Your task to perform on an android device: Go to settings Image 0: 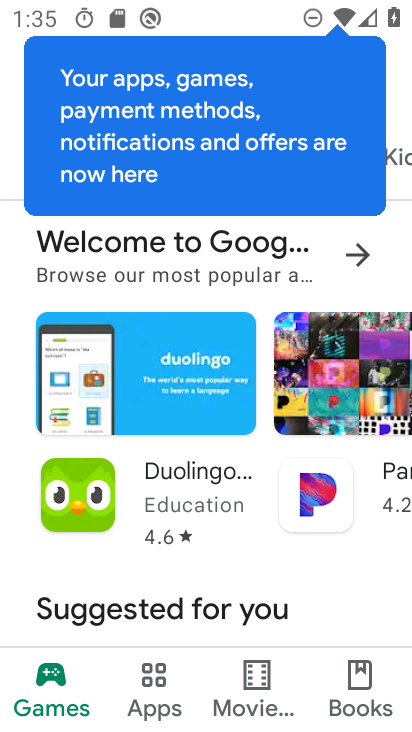
Step 0: press home button
Your task to perform on an android device: Go to settings Image 1: 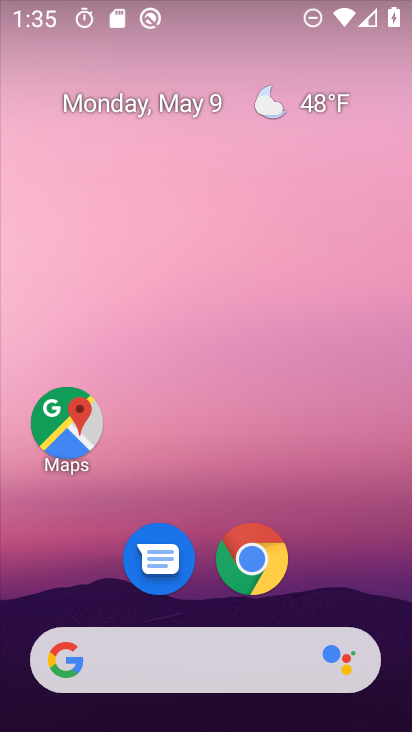
Step 1: drag from (201, 605) to (216, 165)
Your task to perform on an android device: Go to settings Image 2: 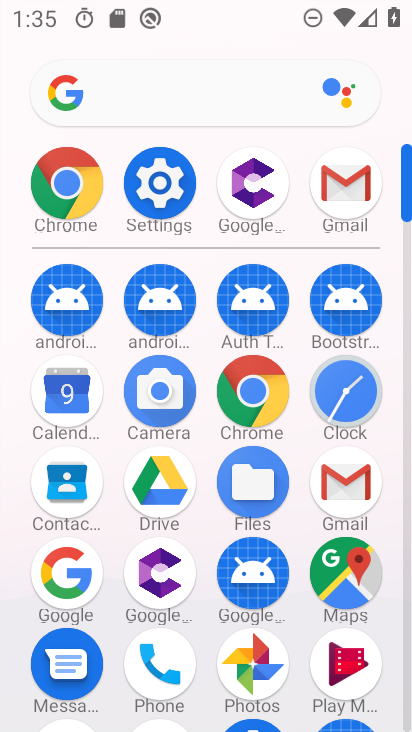
Step 2: click (154, 185)
Your task to perform on an android device: Go to settings Image 3: 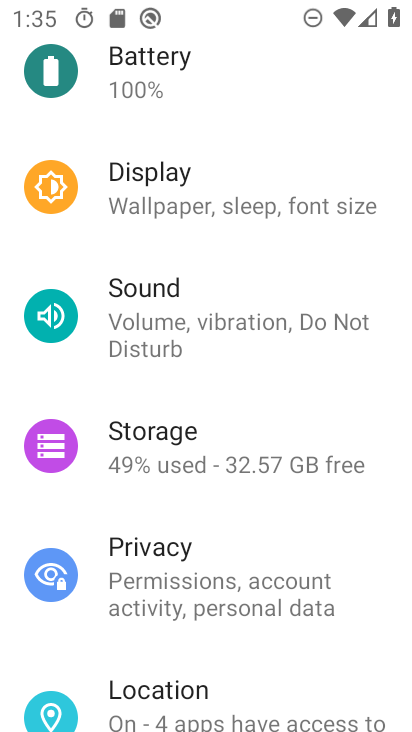
Step 3: task complete